Your task to perform on an android device: Open settings Image 0: 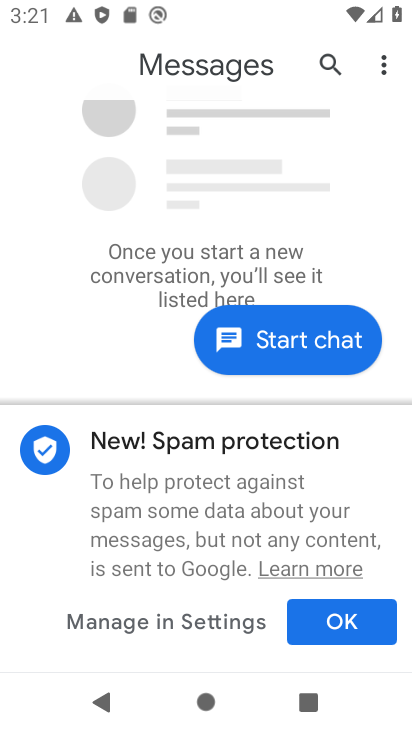
Step 0: press home button
Your task to perform on an android device: Open settings Image 1: 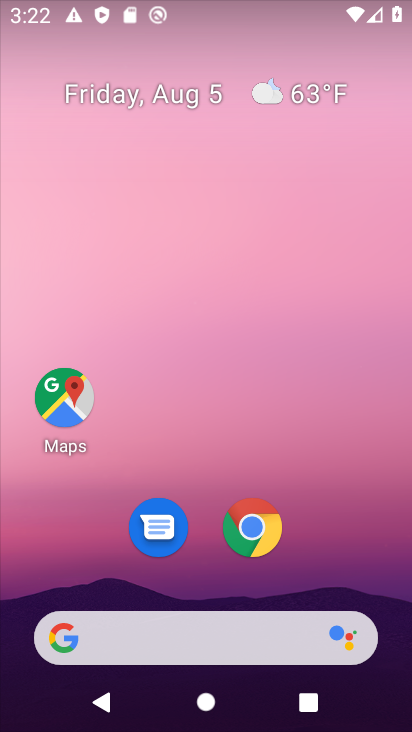
Step 1: drag from (206, 560) to (200, 27)
Your task to perform on an android device: Open settings Image 2: 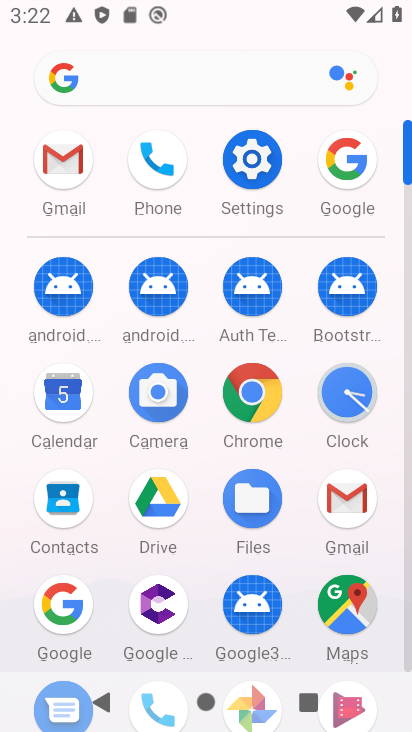
Step 2: click (259, 163)
Your task to perform on an android device: Open settings Image 3: 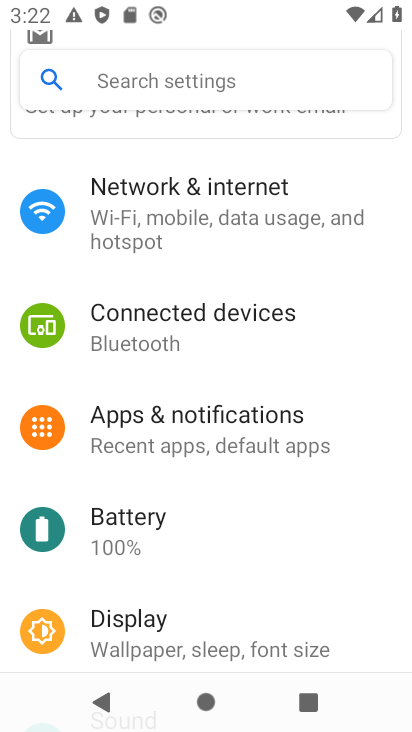
Step 3: task complete